Your task to perform on an android device: allow notifications from all sites in the chrome app Image 0: 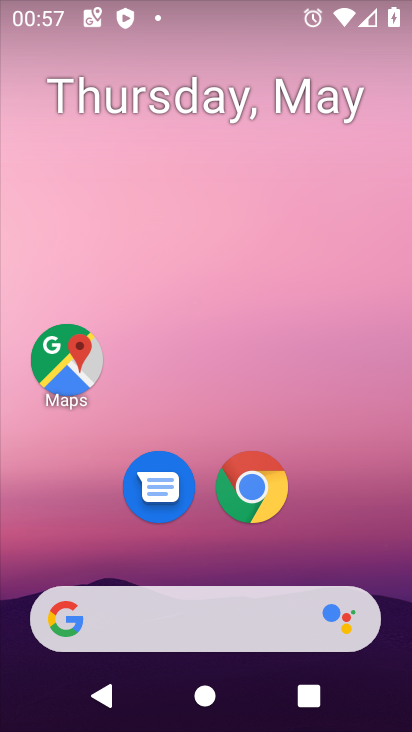
Step 0: click (260, 484)
Your task to perform on an android device: allow notifications from all sites in the chrome app Image 1: 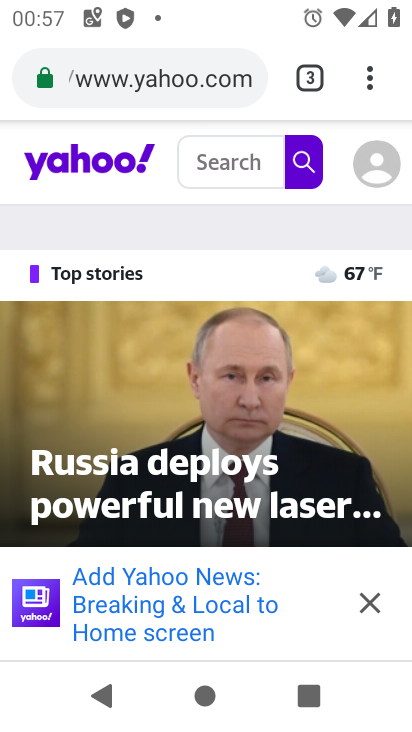
Step 1: click (368, 77)
Your task to perform on an android device: allow notifications from all sites in the chrome app Image 2: 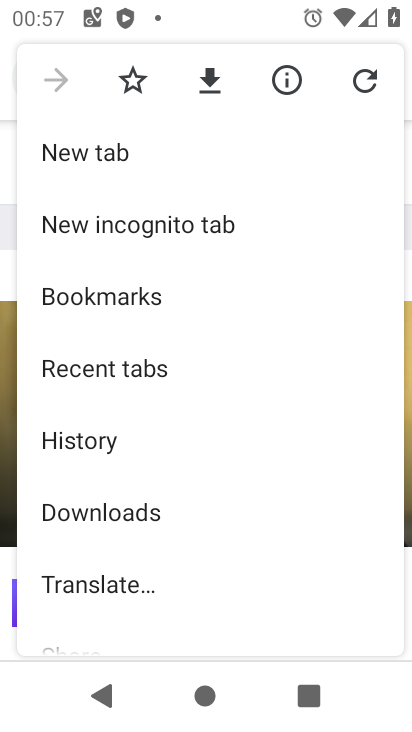
Step 2: drag from (344, 526) to (338, 63)
Your task to perform on an android device: allow notifications from all sites in the chrome app Image 3: 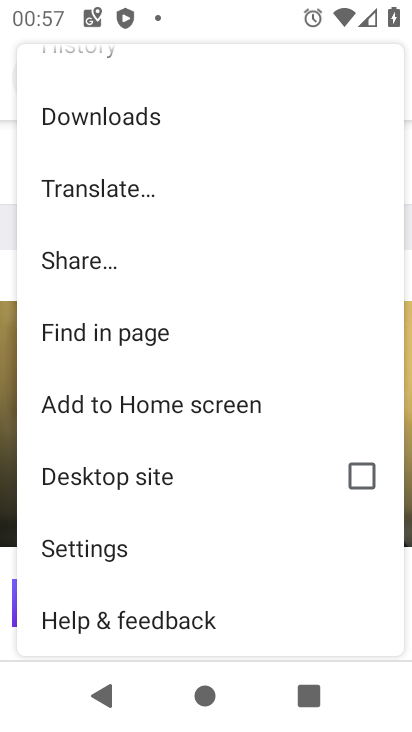
Step 3: click (88, 547)
Your task to perform on an android device: allow notifications from all sites in the chrome app Image 4: 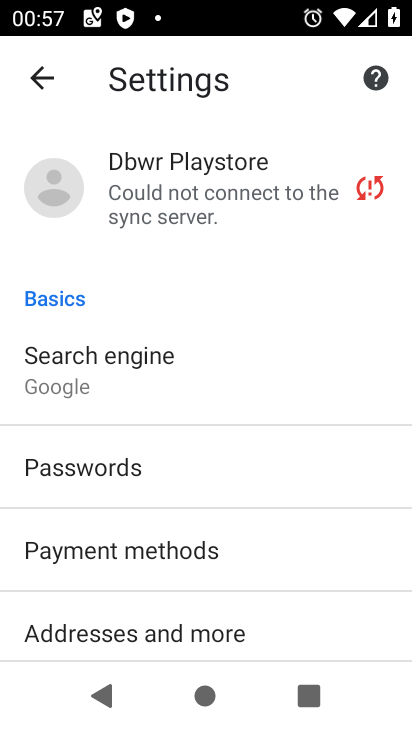
Step 4: drag from (161, 560) to (118, 138)
Your task to perform on an android device: allow notifications from all sites in the chrome app Image 5: 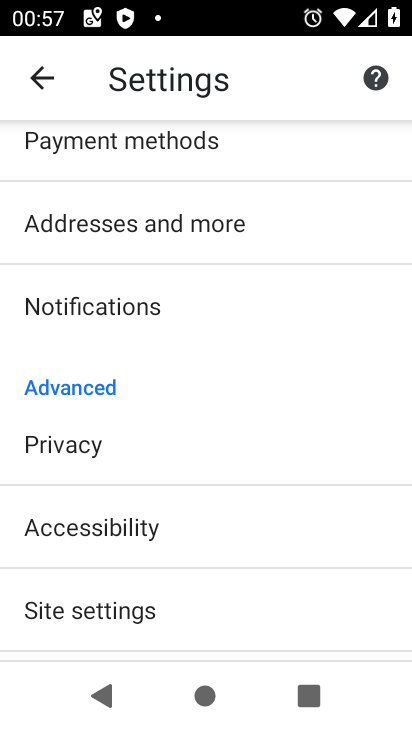
Step 5: drag from (113, 516) to (117, 169)
Your task to perform on an android device: allow notifications from all sites in the chrome app Image 6: 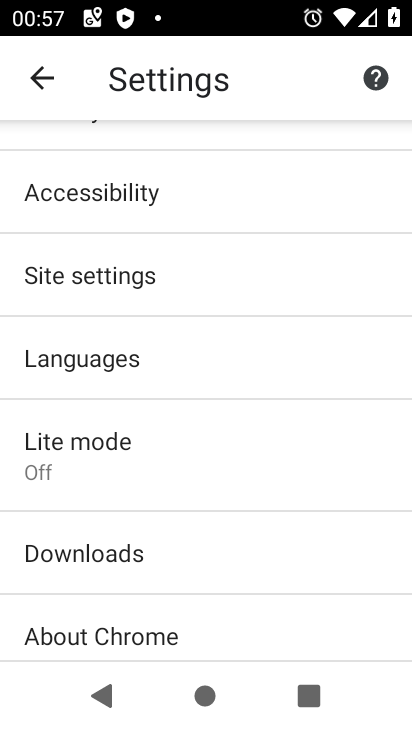
Step 6: click (83, 286)
Your task to perform on an android device: allow notifications from all sites in the chrome app Image 7: 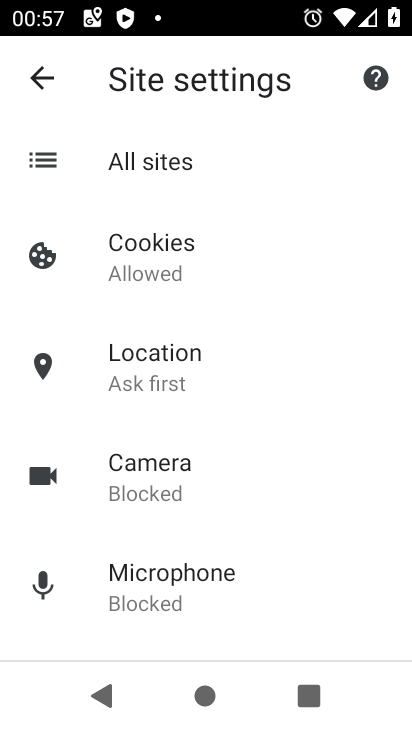
Step 7: drag from (251, 522) to (212, 216)
Your task to perform on an android device: allow notifications from all sites in the chrome app Image 8: 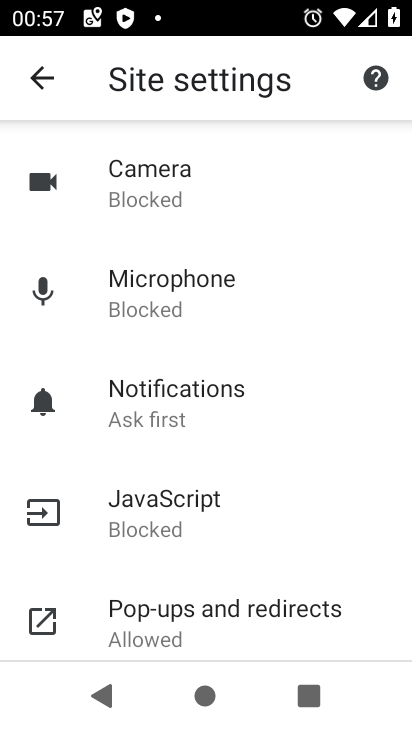
Step 8: click (145, 401)
Your task to perform on an android device: allow notifications from all sites in the chrome app Image 9: 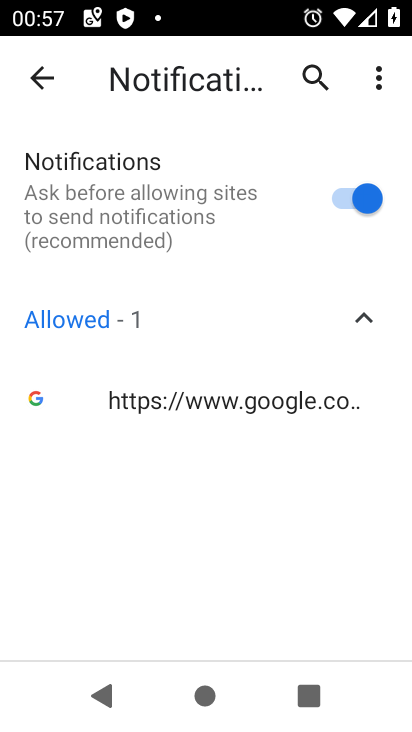
Step 9: task complete